Your task to perform on an android device: install app "McDonald's" Image 0: 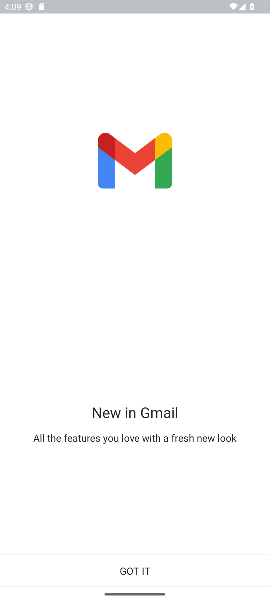
Step 0: press home button
Your task to perform on an android device: install app "McDonald's" Image 1: 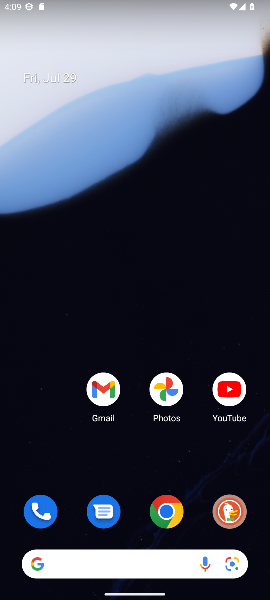
Step 1: drag from (6, 575) to (109, 216)
Your task to perform on an android device: install app "McDonald's" Image 2: 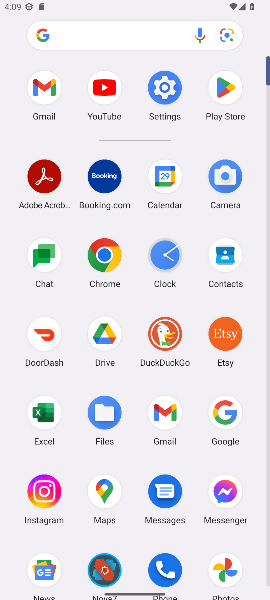
Step 2: click (221, 80)
Your task to perform on an android device: install app "McDonald's" Image 3: 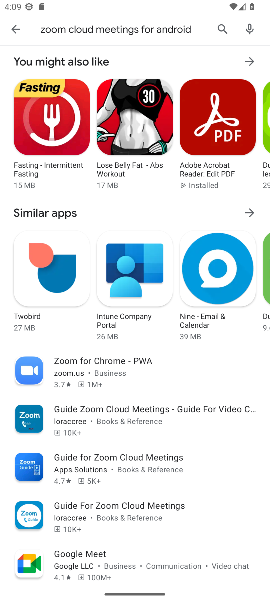
Step 3: click (17, 32)
Your task to perform on an android device: install app "McDonald's" Image 4: 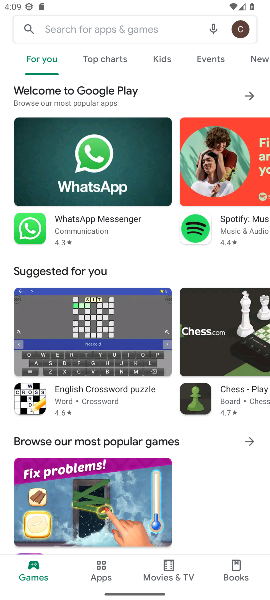
Step 4: click (103, 29)
Your task to perform on an android device: install app "McDonald's" Image 5: 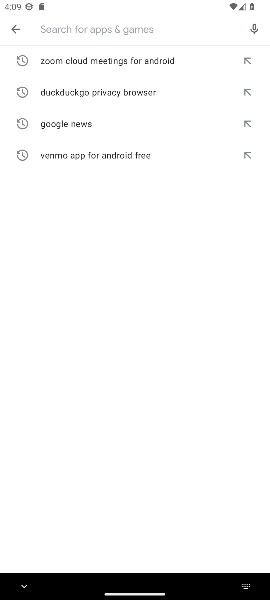
Step 5: type "McDonald's"
Your task to perform on an android device: install app "McDonald's" Image 6: 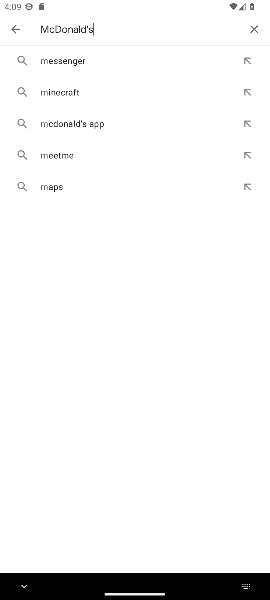
Step 6: type ""
Your task to perform on an android device: install app "McDonald's" Image 7: 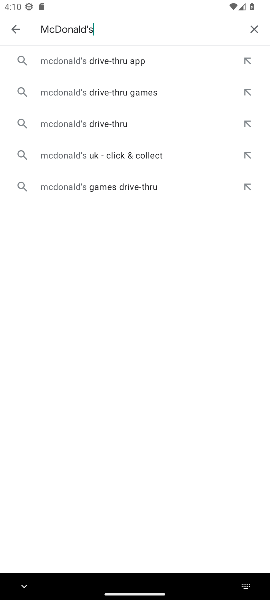
Step 7: type ""
Your task to perform on an android device: install app "McDonald's" Image 8: 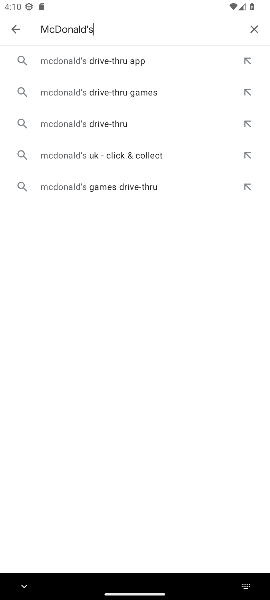
Step 8: type ""
Your task to perform on an android device: install app "McDonald's" Image 9: 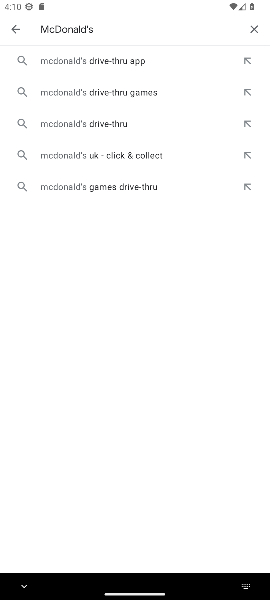
Step 9: click (96, 70)
Your task to perform on an android device: install app "McDonald's" Image 10: 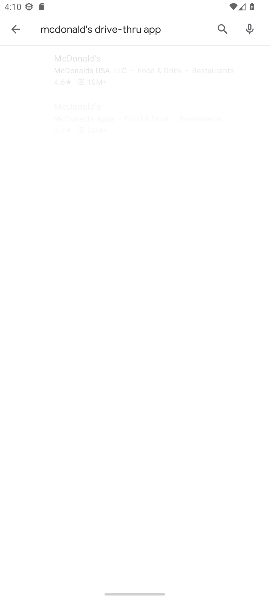
Step 10: click (91, 58)
Your task to perform on an android device: install app "McDonald's" Image 11: 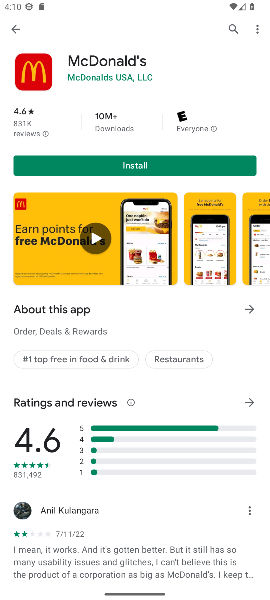
Step 11: click (130, 162)
Your task to perform on an android device: install app "McDonald's" Image 12: 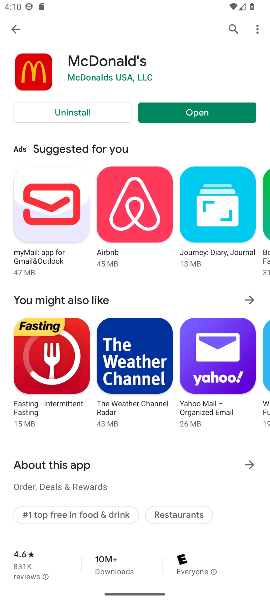
Step 12: task complete